Your task to perform on an android device: check data usage Image 0: 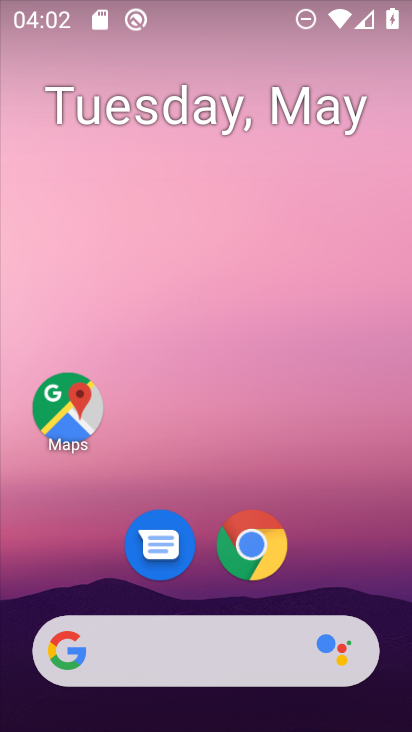
Step 0: drag from (386, 607) to (319, 126)
Your task to perform on an android device: check data usage Image 1: 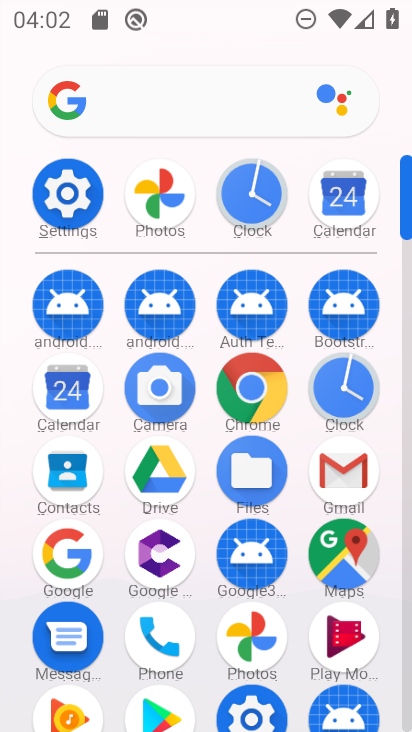
Step 1: click (404, 703)
Your task to perform on an android device: check data usage Image 2: 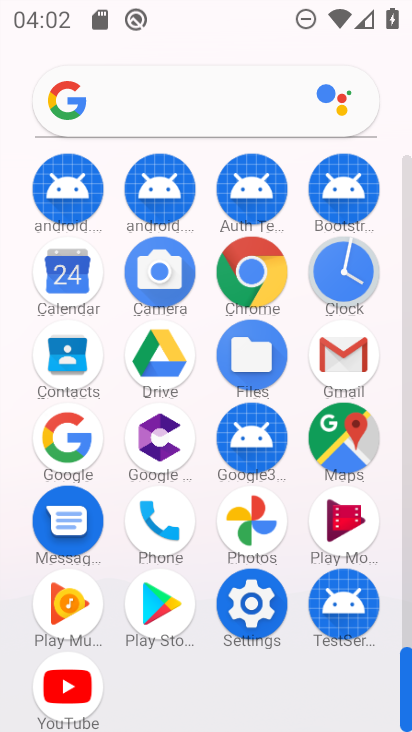
Step 2: click (250, 601)
Your task to perform on an android device: check data usage Image 3: 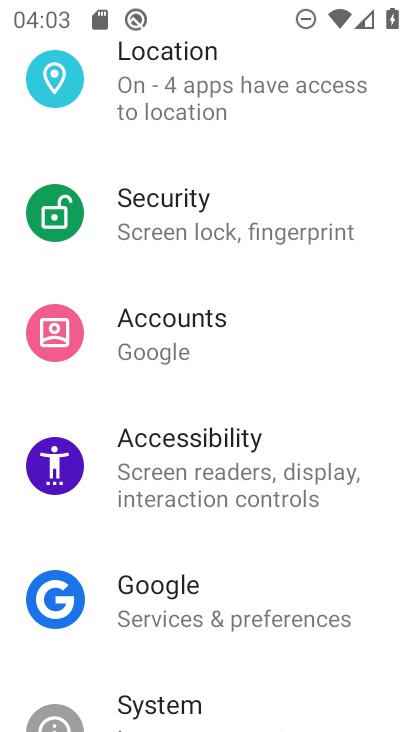
Step 3: drag from (334, 88) to (336, 524)
Your task to perform on an android device: check data usage Image 4: 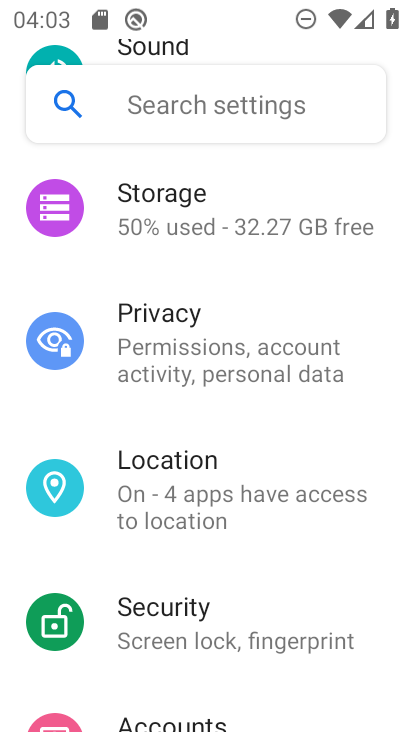
Step 4: drag from (366, 203) to (327, 597)
Your task to perform on an android device: check data usage Image 5: 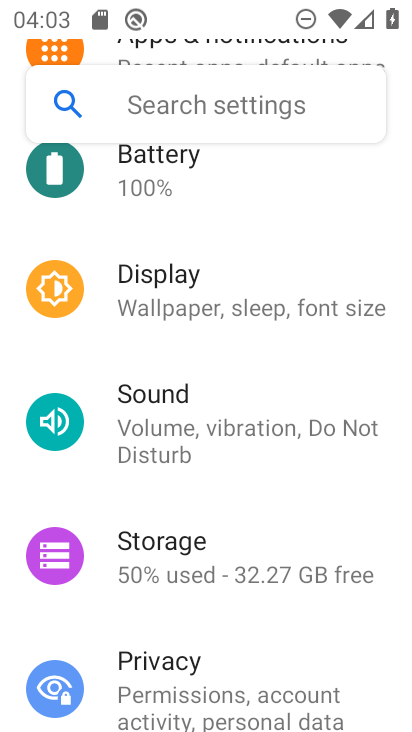
Step 5: drag from (349, 256) to (361, 577)
Your task to perform on an android device: check data usage Image 6: 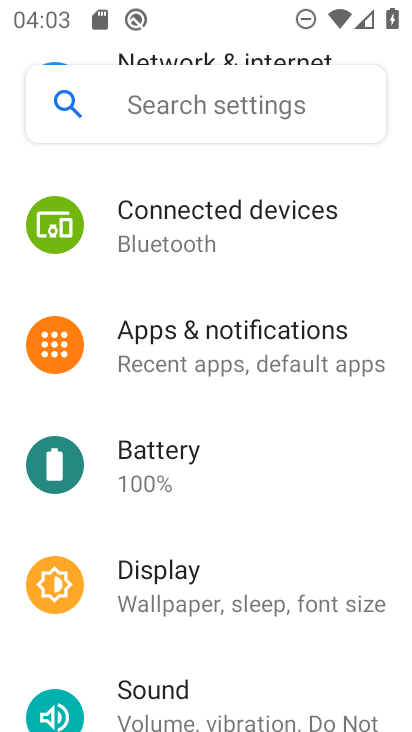
Step 6: drag from (310, 232) to (328, 589)
Your task to perform on an android device: check data usage Image 7: 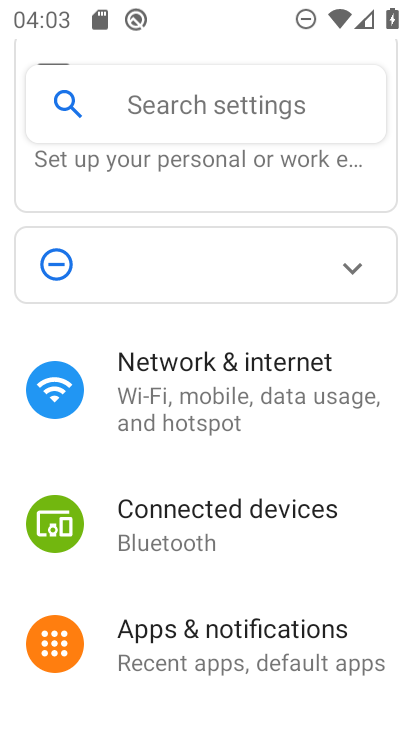
Step 7: click (148, 395)
Your task to perform on an android device: check data usage Image 8: 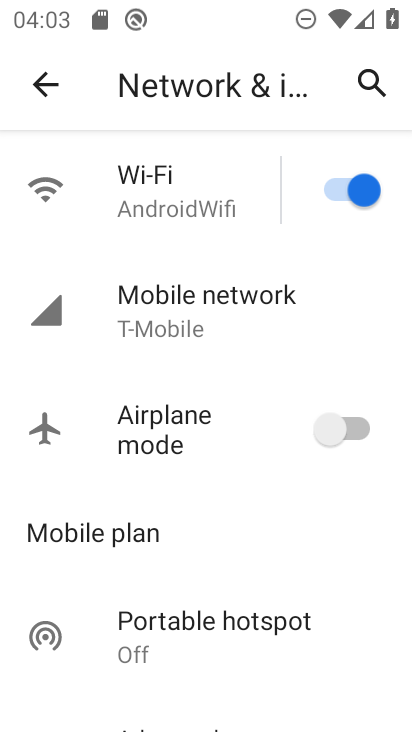
Step 8: click (165, 297)
Your task to perform on an android device: check data usage Image 9: 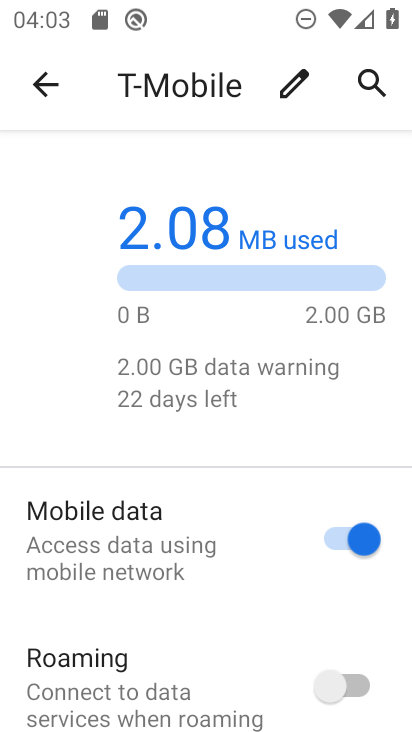
Step 9: task complete